Your task to perform on an android device: Go to network settings Image 0: 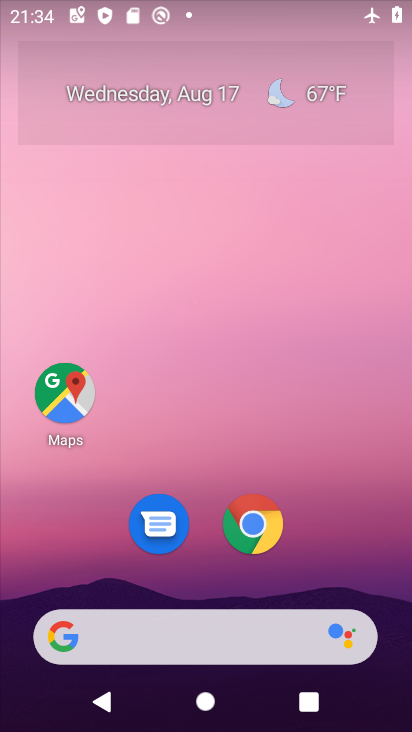
Step 0: drag from (321, 550) to (377, 35)
Your task to perform on an android device: Go to network settings Image 1: 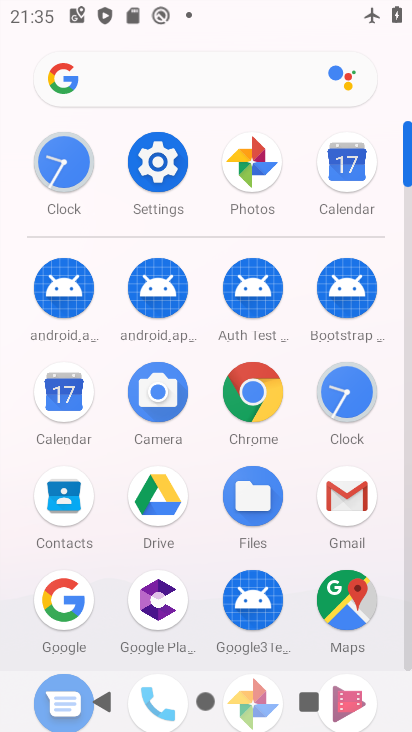
Step 1: click (160, 158)
Your task to perform on an android device: Go to network settings Image 2: 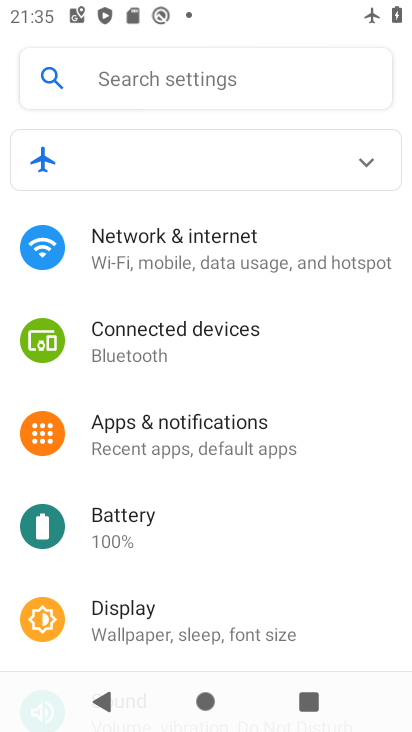
Step 2: click (178, 239)
Your task to perform on an android device: Go to network settings Image 3: 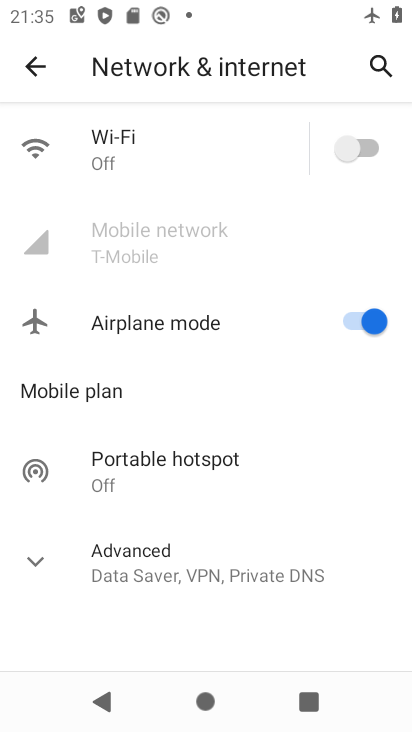
Step 3: click (358, 314)
Your task to perform on an android device: Go to network settings Image 4: 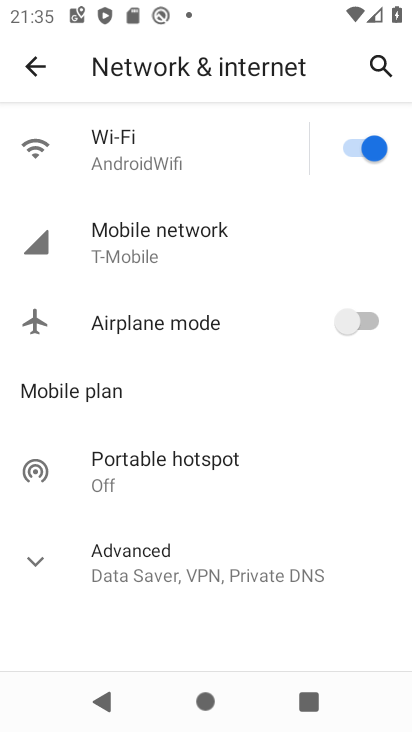
Step 4: task complete